Your task to perform on an android device: toggle show notifications on the lock screen Image 0: 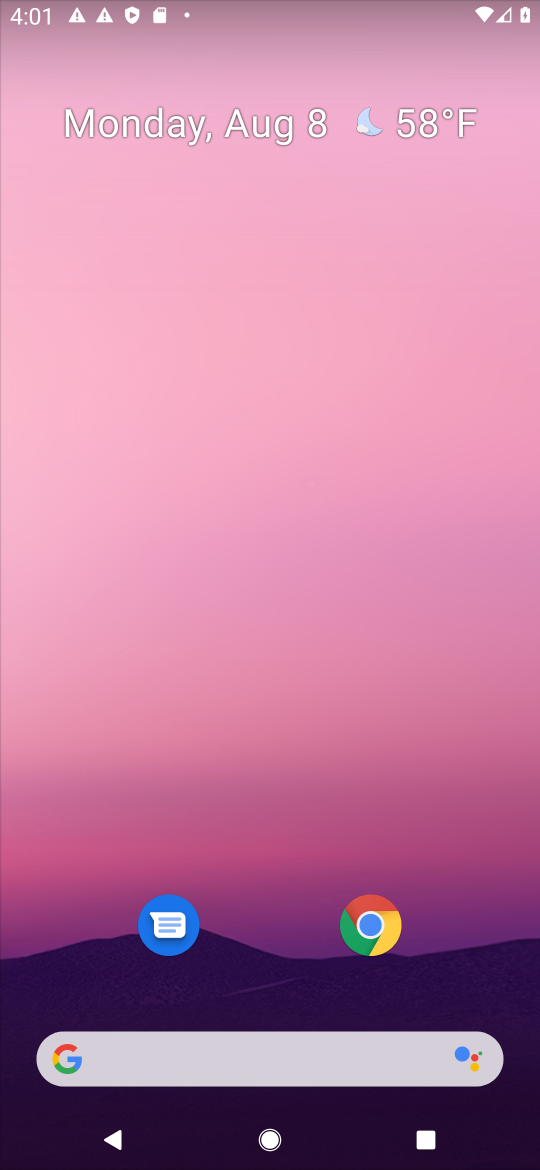
Step 0: drag from (259, 863) to (310, 77)
Your task to perform on an android device: toggle show notifications on the lock screen Image 1: 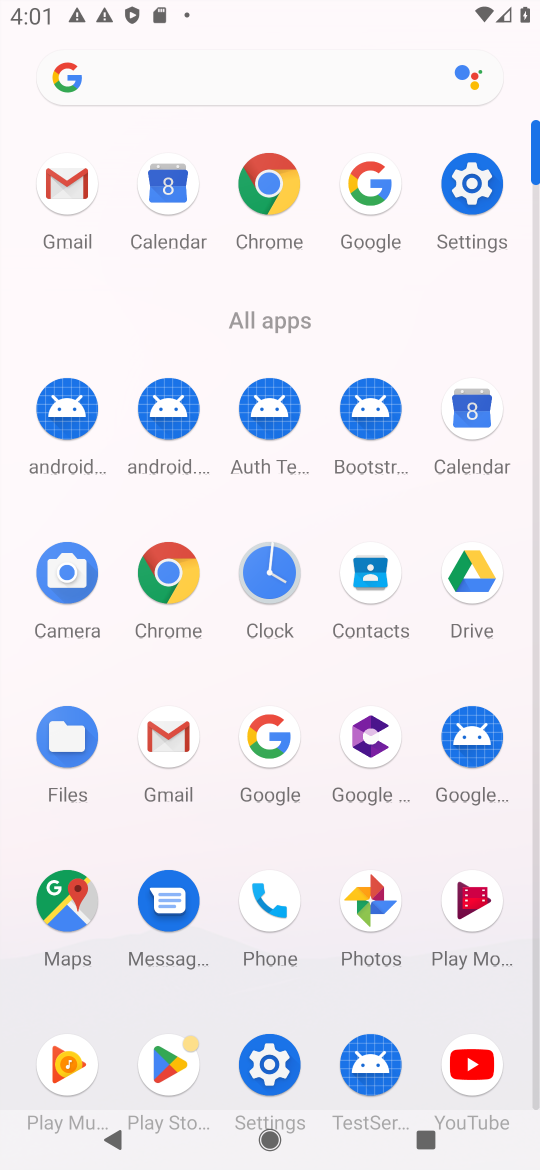
Step 1: click (478, 213)
Your task to perform on an android device: toggle show notifications on the lock screen Image 2: 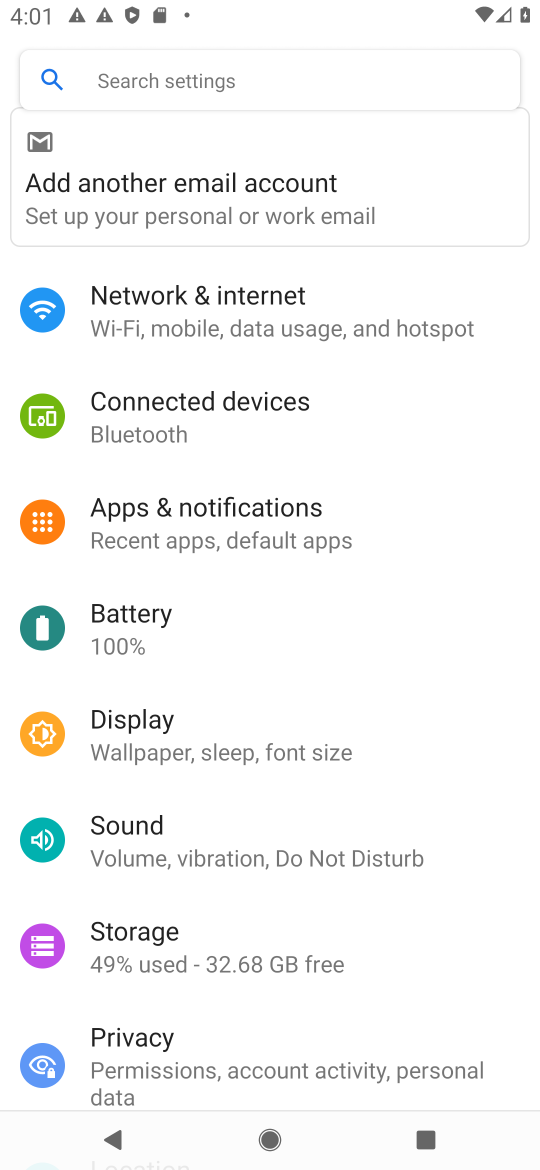
Step 2: click (166, 504)
Your task to perform on an android device: toggle show notifications on the lock screen Image 3: 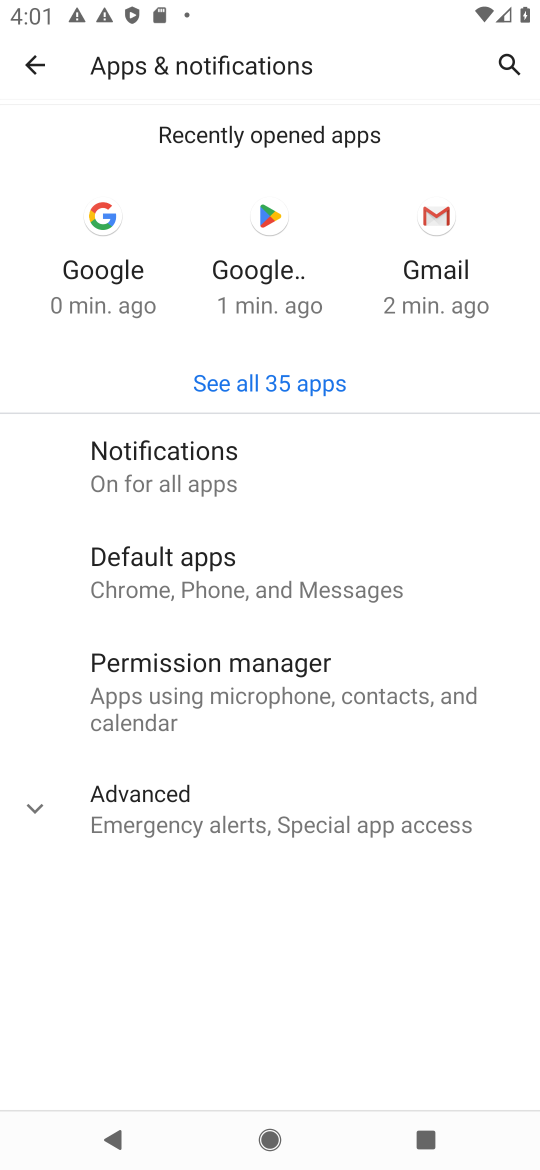
Step 3: click (146, 455)
Your task to perform on an android device: toggle show notifications on the lock screen Image 4: 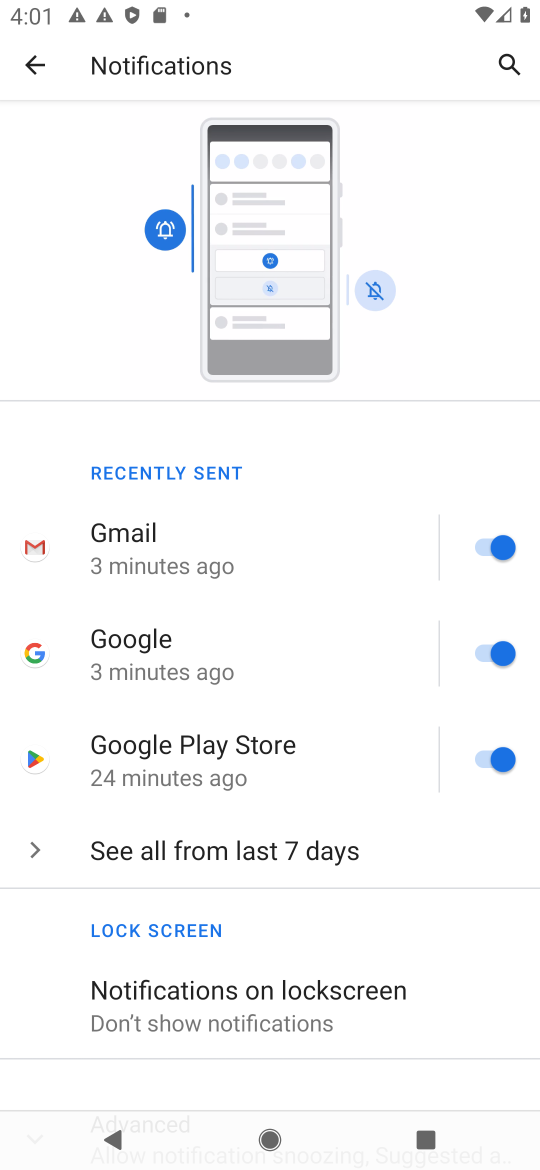
Step 4: click (252, 1014)
Your task to perform on an android device: toggle show notifications on the lock screen Image 5: 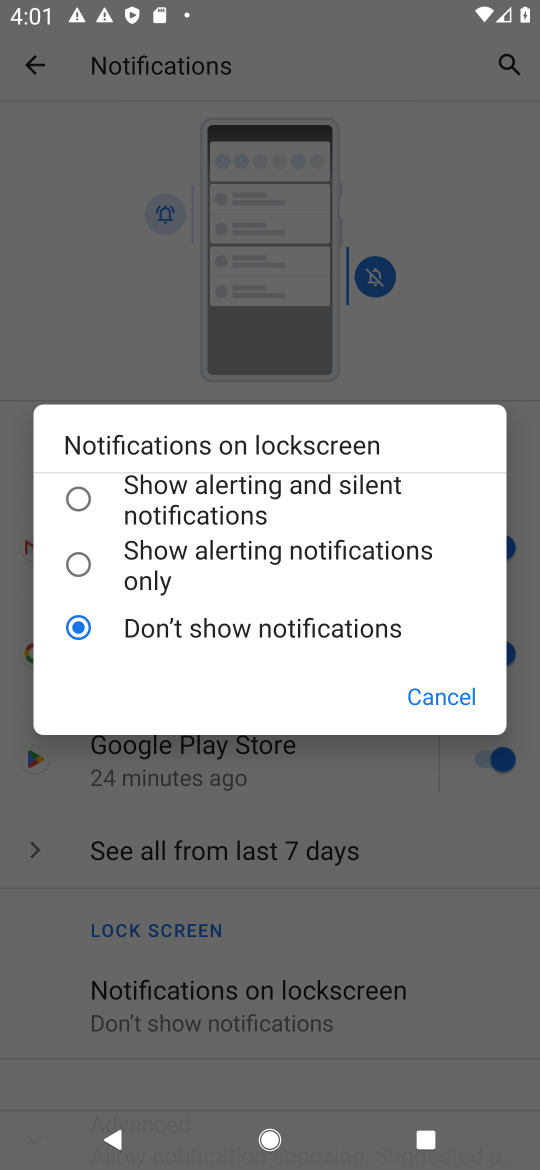
Step 5: click (77, 502)
Your task to perform on an android device: toggle show notifications on the lock screen Image 6: 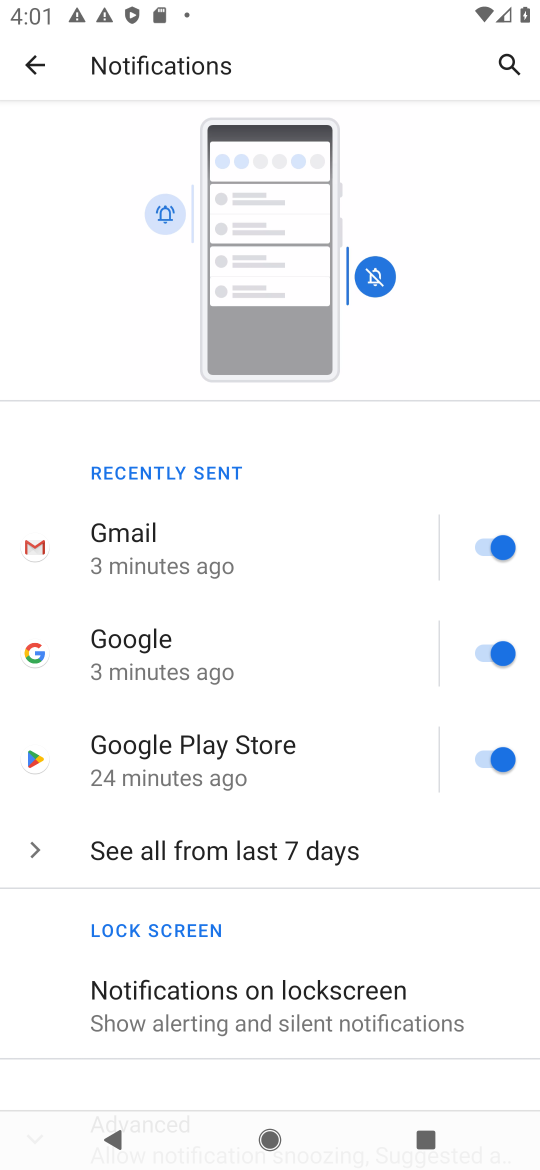
Step 6: task complete